Your task to perform on an android device: Show the shopping cart on bestbuy.com. Add razer kraken to the cart on bestbuy.com Image 0: 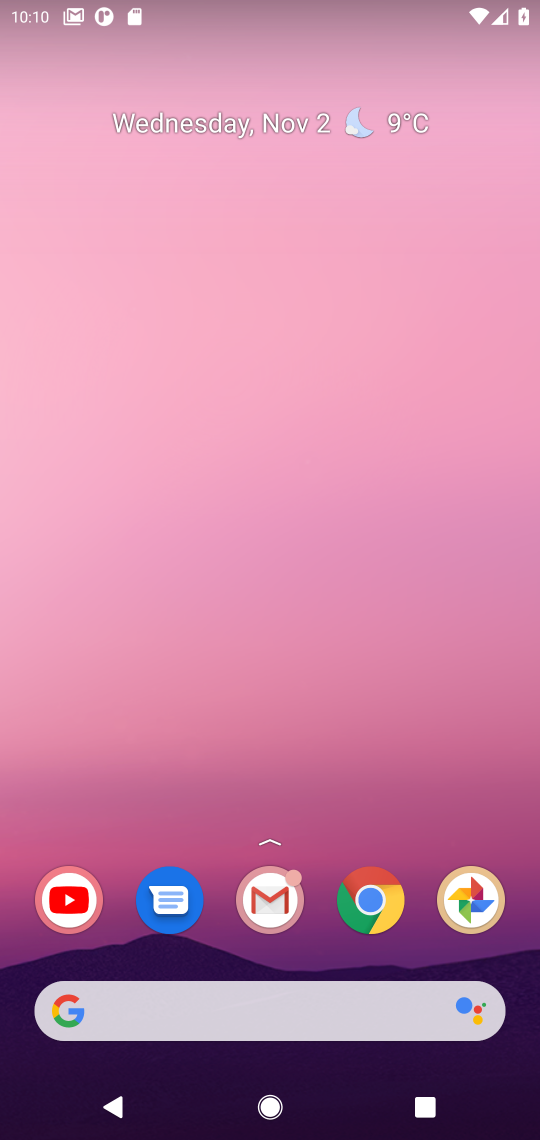
Step 0: click (377, 910)
Your task to perform on an android device: Show the shopping cart on bestbuy.com. Add razer kraken to the cart on bestbuy.com Image 1: 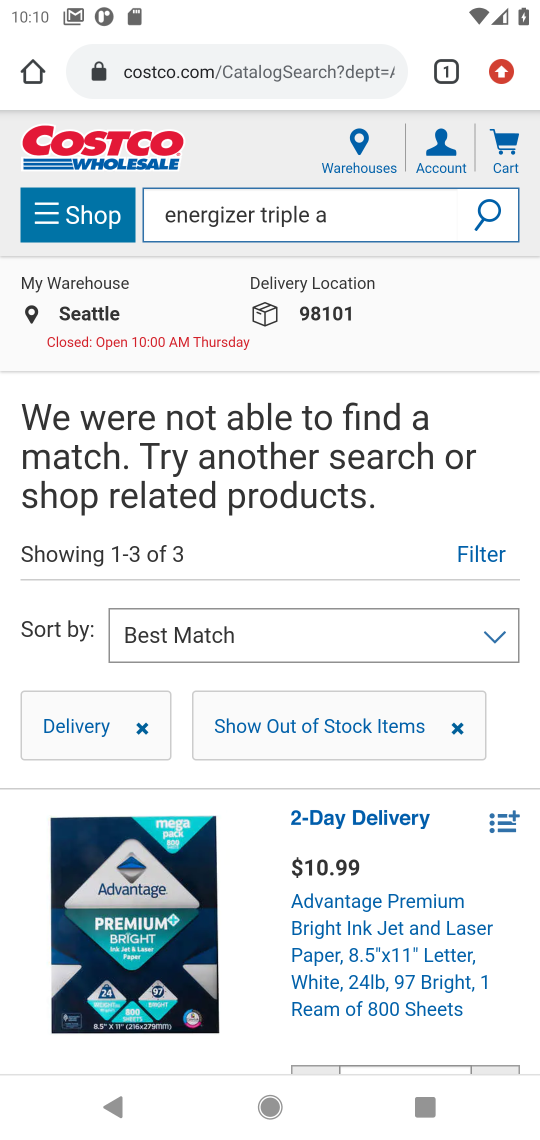
Step 1: click (172, 79)
Your task to perform on an android device: Show the shopping cart on bestbuy.com. Add razer kraken to the cart on bestbuy.com Image 2: 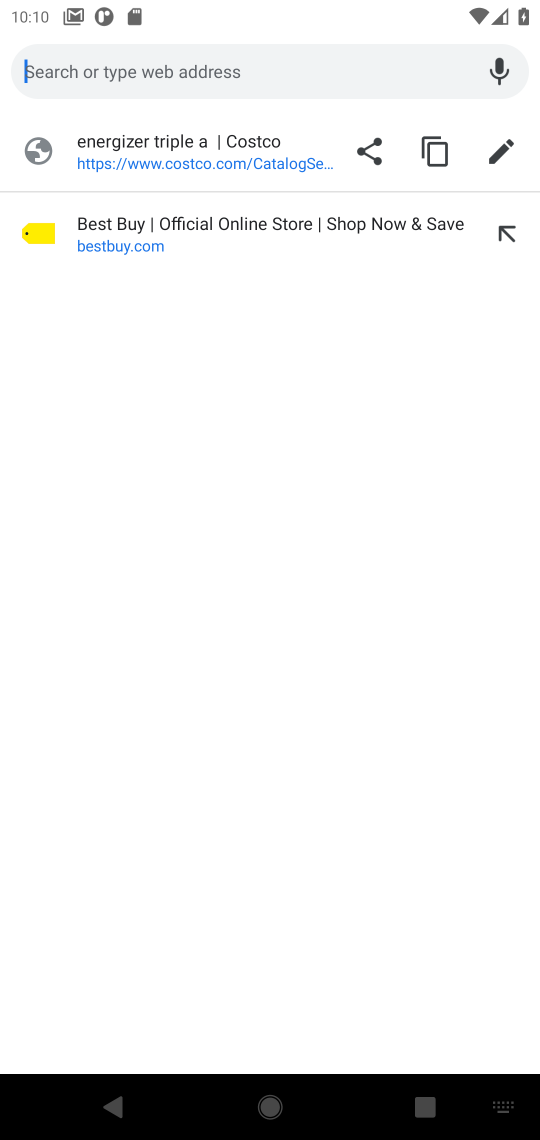
Step 2: click (78, 243)
Your task to perform on an android device: Show the shopping cart on bestbuy.com. Add razer kraken to the cart on bestbuy.com Image 3: 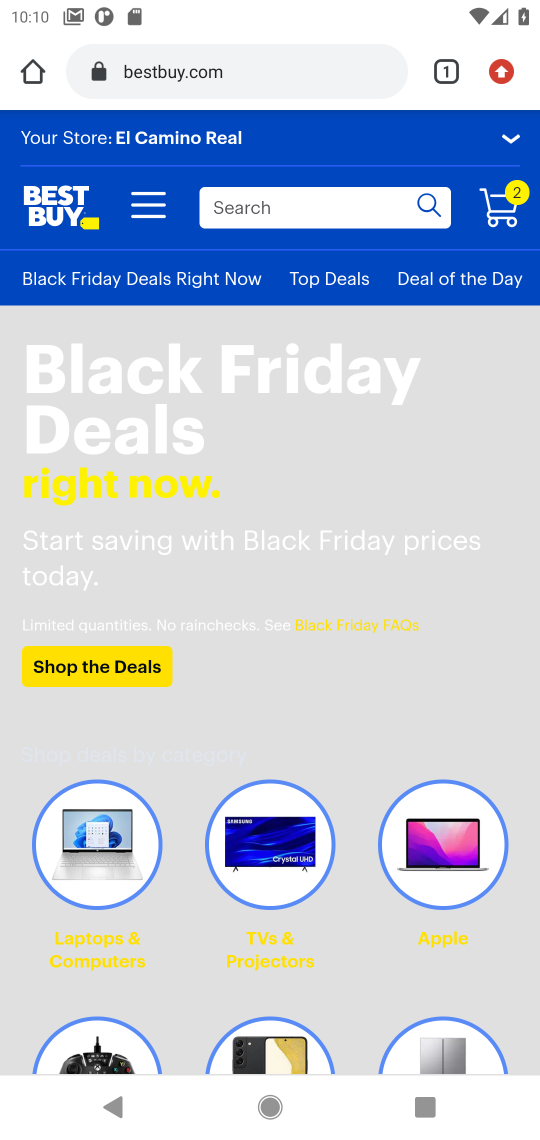
Step 3: click (517, 189)
Your task to perform on an android device: Show the shopping cart on bestbuy.com. Add razer kraken to the cart on bestbuy.com Image 4: 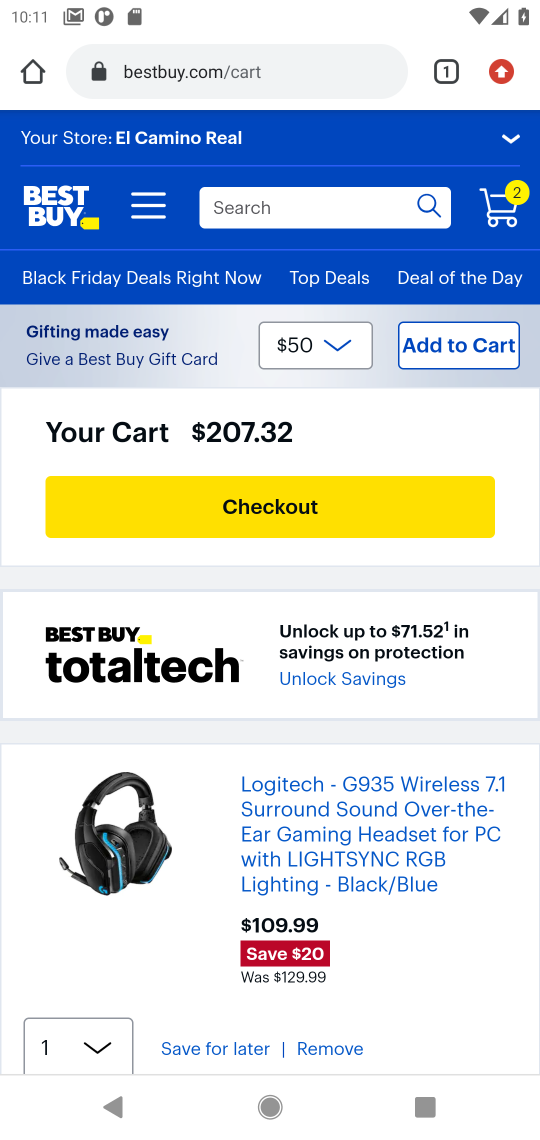
Step 4: click (362, 208)
Your task to perform on an android device: Show the shopping cart on bestbuy.com. Add razer kraken to the cart on bestbuy.com Image 5: 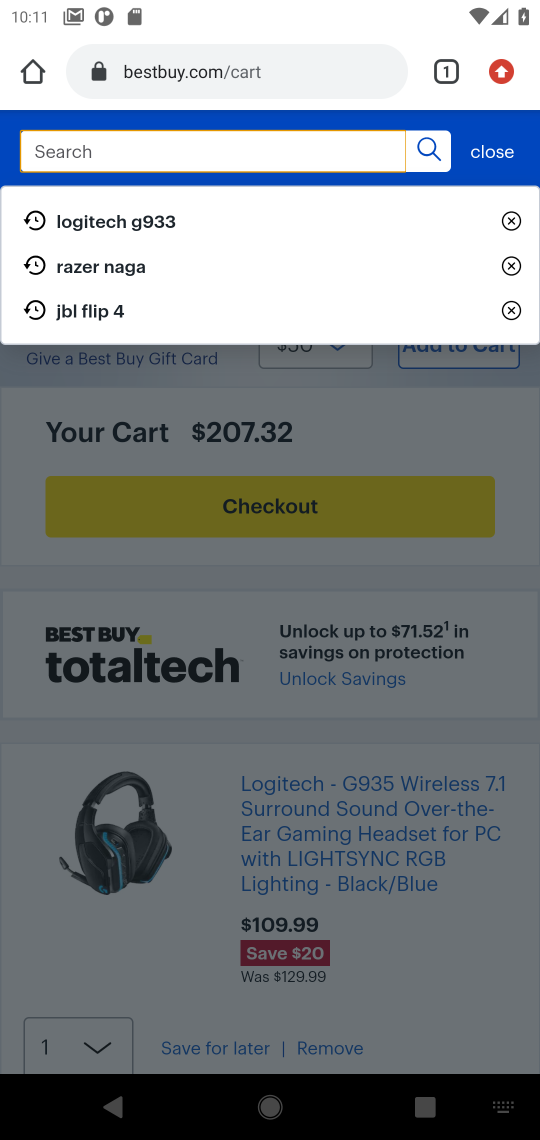
Step 5: type "razer kraken"
Your task to perform on an android device: Show the shopping cart on bestbuy.com. Add razer kraken to the cart on bestbuy.com Image 6: 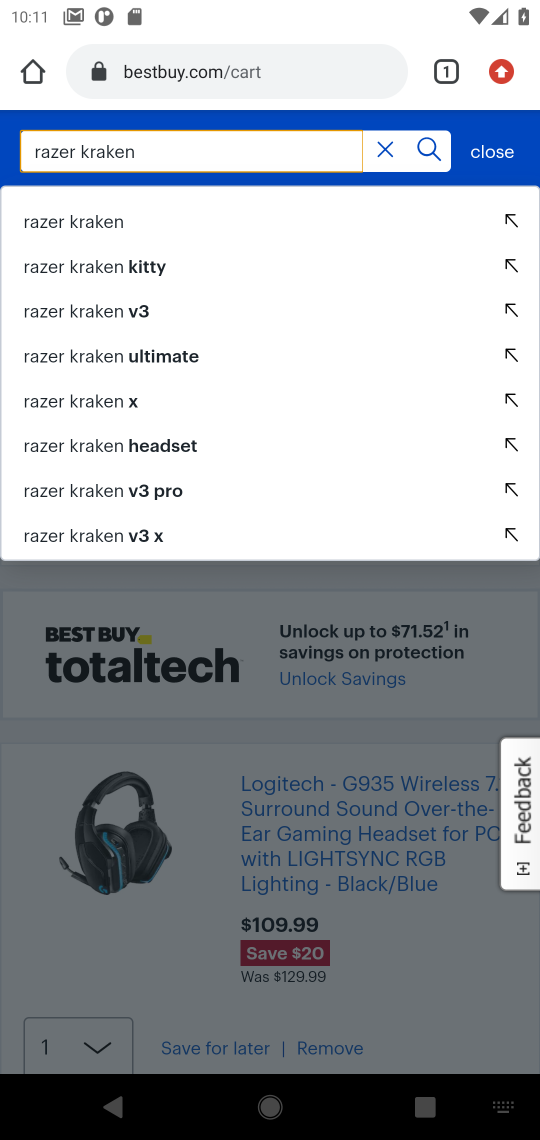
Step 6: click (441, 158)
Your task to perform on an android device: Show the shopping cart on bestbuy.com. Add razer kraken to the cart on bestbuy.com Image 7: 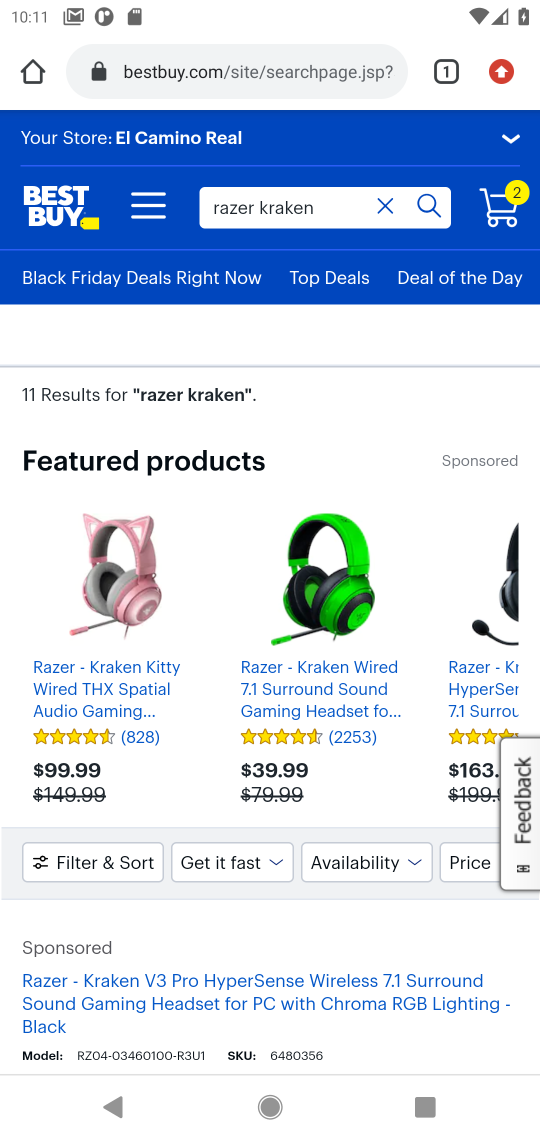
Step 7: drag from (203, 956) to (245, 322)
Your task to perform on an android device: Show the shopping cart on bestbuy.com. Add razer kraken to the cart on bestbuy.com Image 8: 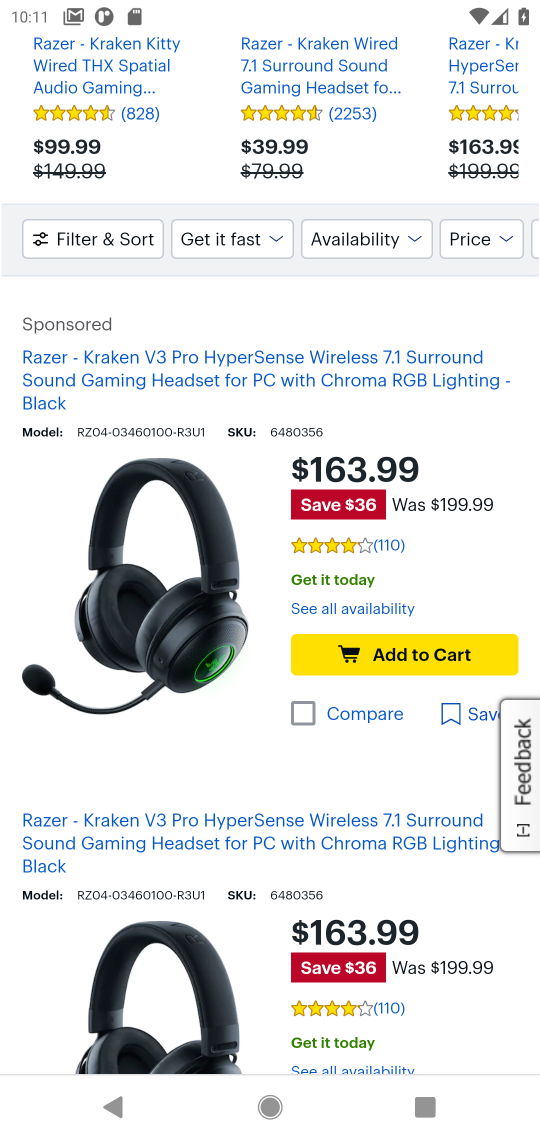
Step 8: click (352, 658)
Your task to perform on an android device: Show the shopping cart on bestbuy.com. Add razer kraken to the cart on bestbuy.com Image 9: 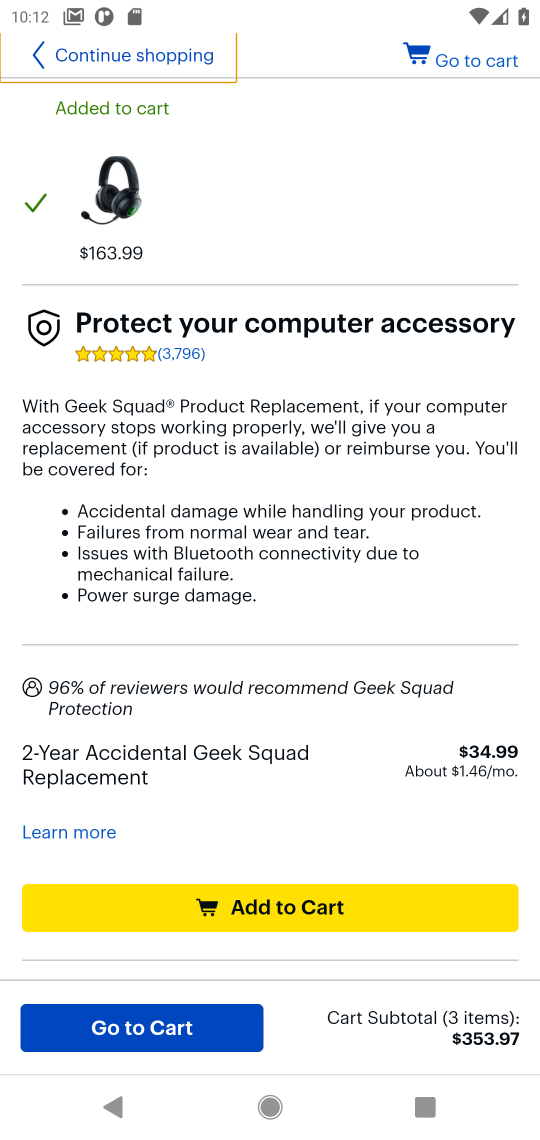
Step 9: task complete